Your task to perform on an android device: open app "Booking.com: Hotels and more" (install if not already installed) Image 0: 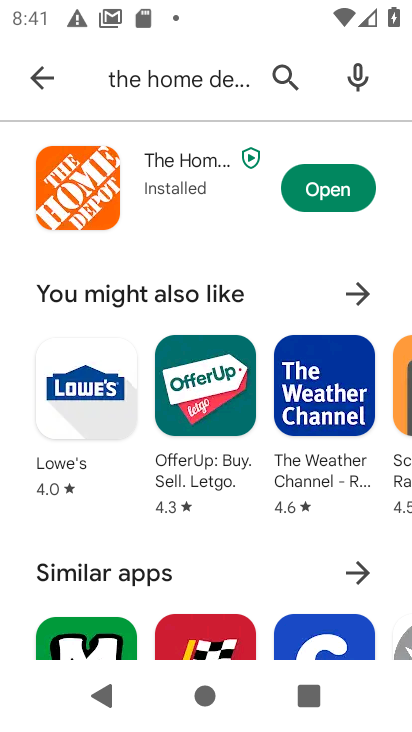
Step 0: click (331, 195)
Your task to perform on an android device: open app "Booking.com: Hotels and more" (install if not already installed) Image 1: 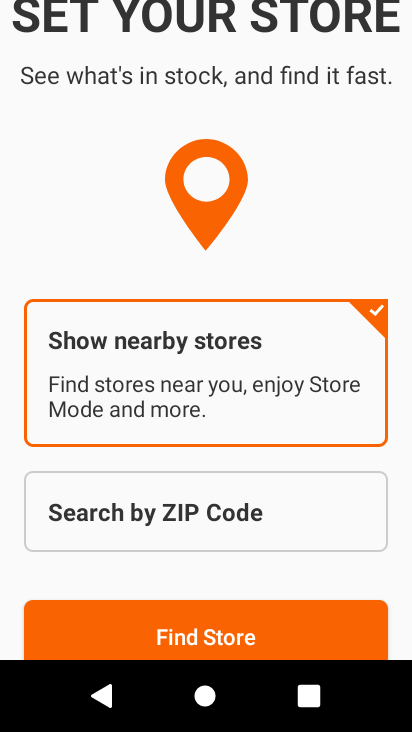
Step 1: task complete